Your task to perform on an android device: toggle priority inbox in the gmail app Image 0: 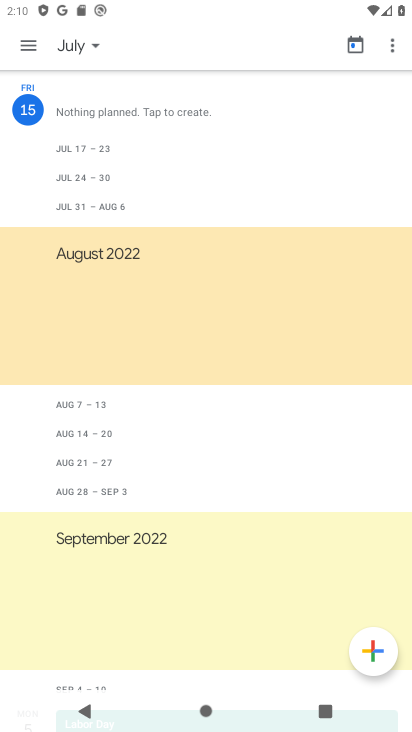
Step 0: press home button
Your task to perform on an android device: toggle priority inbox in the gmail app Image 1: 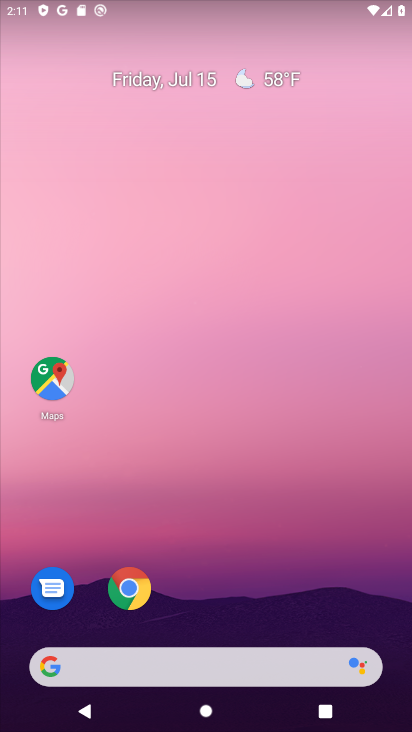
Step 1: drag from (206, 605) to (200, 230)
Your task to perform on an android device: toggle priority inbox in the gmail app Image 2: 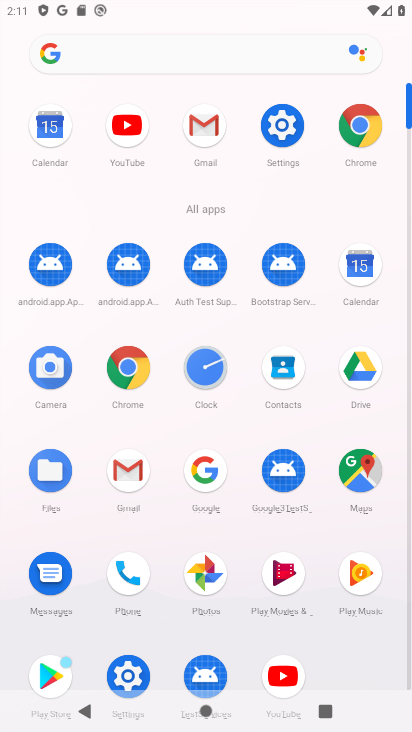
Step 2: click (137, 472)
Your task to perform on an android device: toggle priority inbox in the gmail app Image 3: 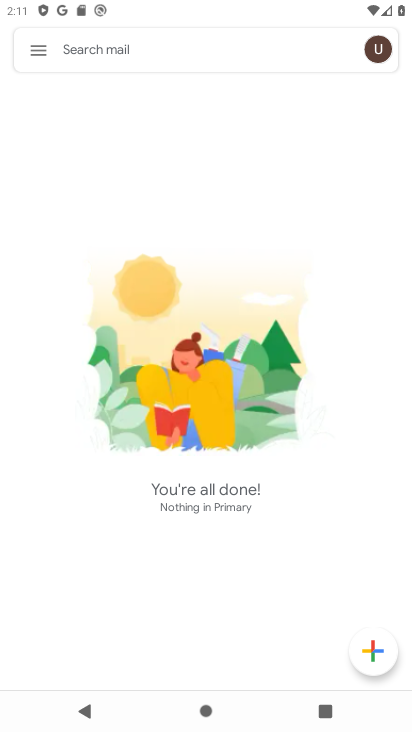
Step 3: click (22, 59)
Your task to perform on an android device: toggle priority inbox in the gmail app Image 4: 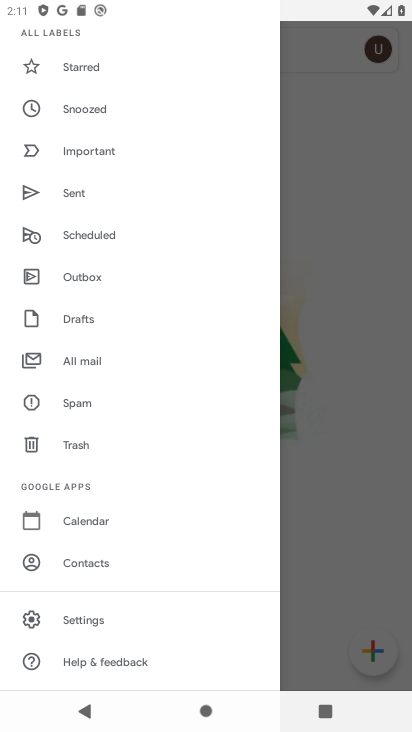
Step 4: click (119, 626)
Your task to perform on an android device: toggle priority inbox in the gmail app Image 5: 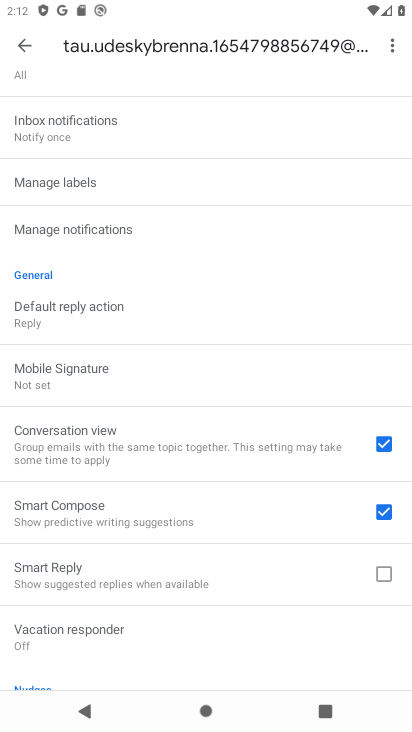
Step 5: task complete